Your task to perform on an android device: manage bookmarks in the chrome app Image 0: 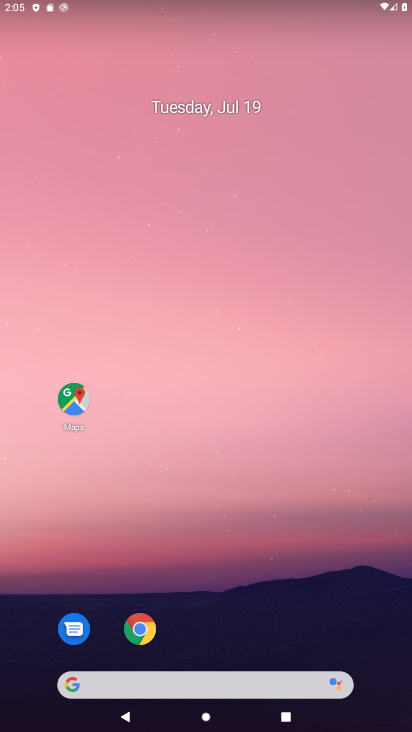
Step 0: click (141, 629)
Your task to perform on an android device: manage bookmarks in the chrome app Image 1: 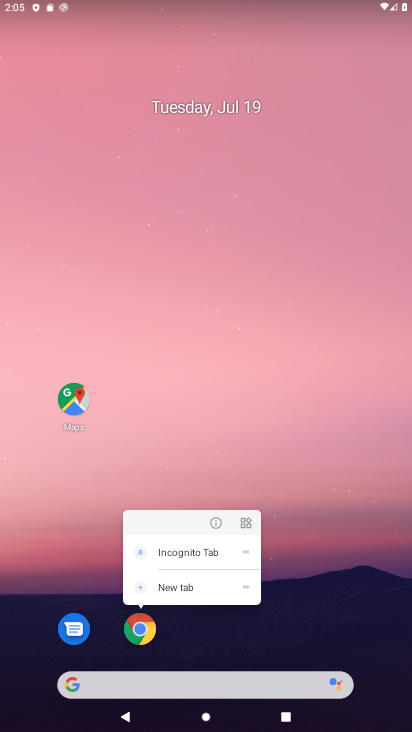
Step 1: click (143, 633)
Your task to perform on an android device: manage bookmarks in the chrome app Image 2: 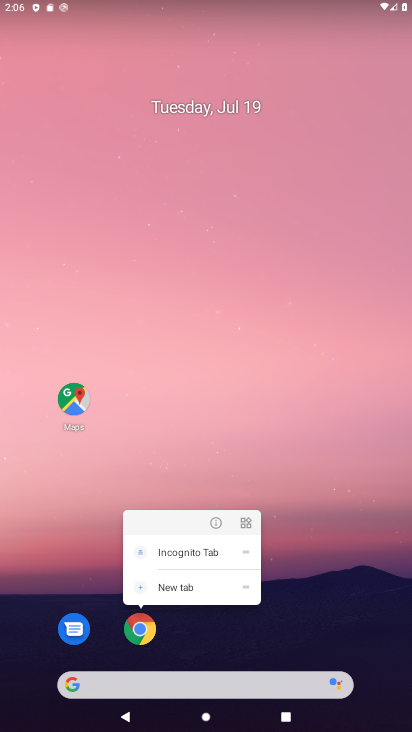
Step 2: click (143, 634)
Your task to perform on an android device: manage bookmarks in the chrome app Image 3: 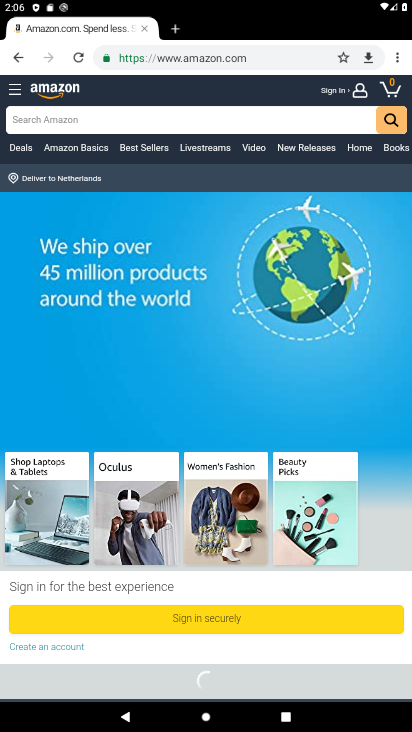
Step 3: drag from (393, 54) to (342, 114)
Your task to perform on an android device: manage bookmarks in the chrome app Image 4: 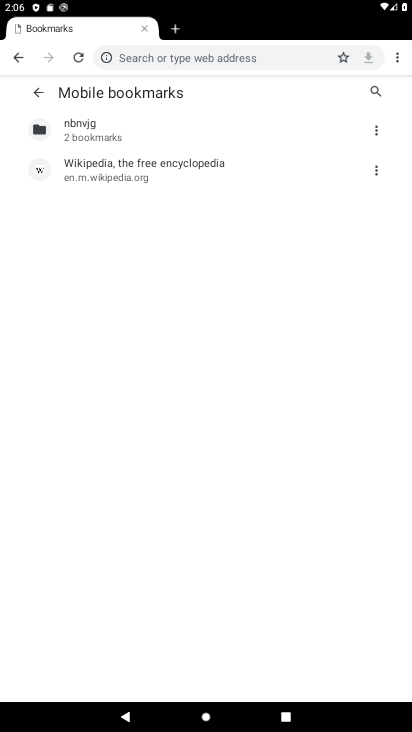
Step 4: click (179, 177)
Your task to perform on an android device: manage bookmarks in the chrome app Image 5: 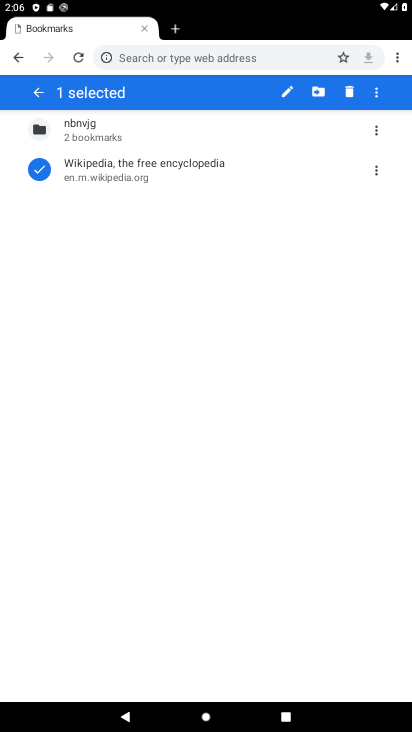
Step 5: click (324, 85)
Your task to perform on an android device: manage bookmarks in the chrome app Image 6: 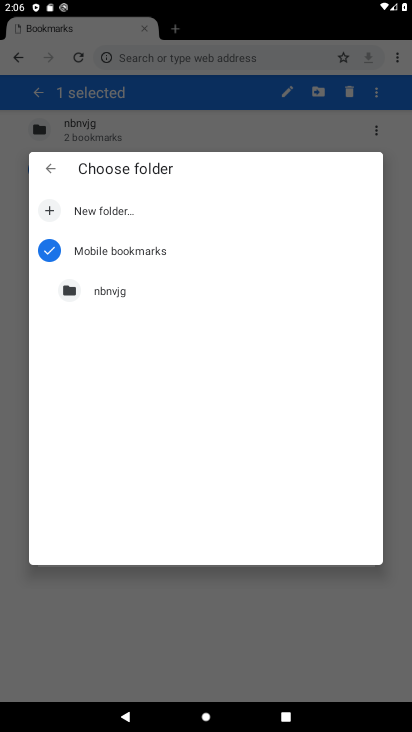
Step 6: click (157, 210)
Your task to perform on an android device: manage bookmarks in the chrome app Image 7: 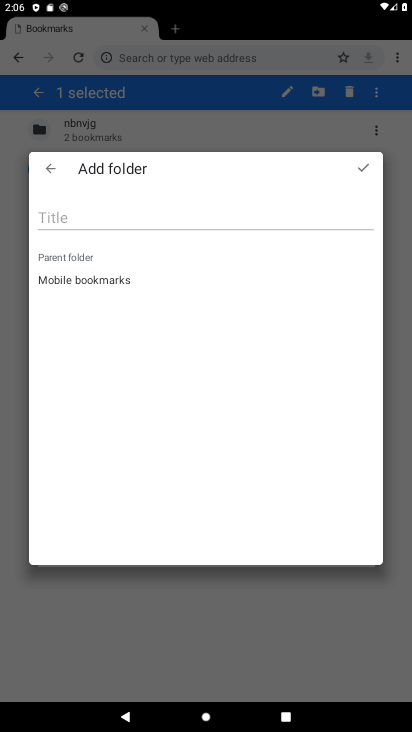
Step 7: click (91, 219)
Your task to perform on an android device: manage bookmarks in the chrome app Image 8: 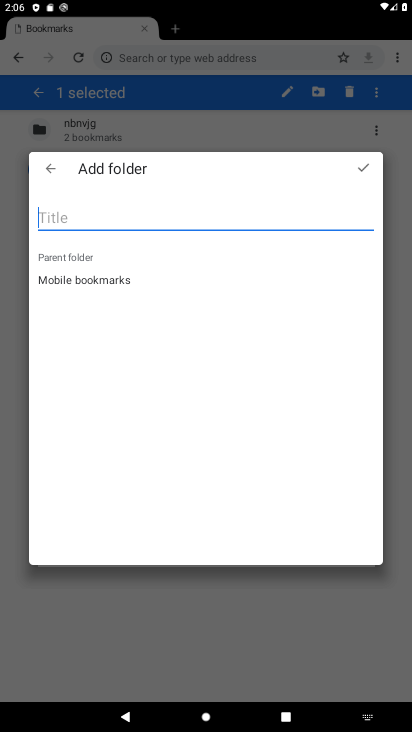
Step 8: type "hh"
Your task to perform on an android device: manage bookmarks in the chrome app Image 9: 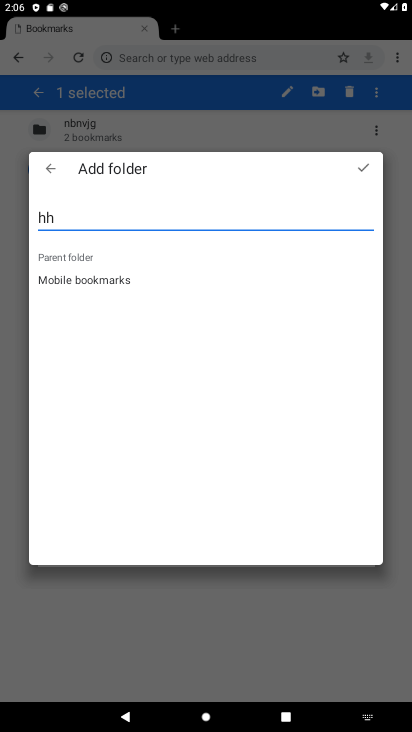
Step 9: click (370, 162)
Your task to perform on an android device: manage bookmarks in the chrome app Image 10: 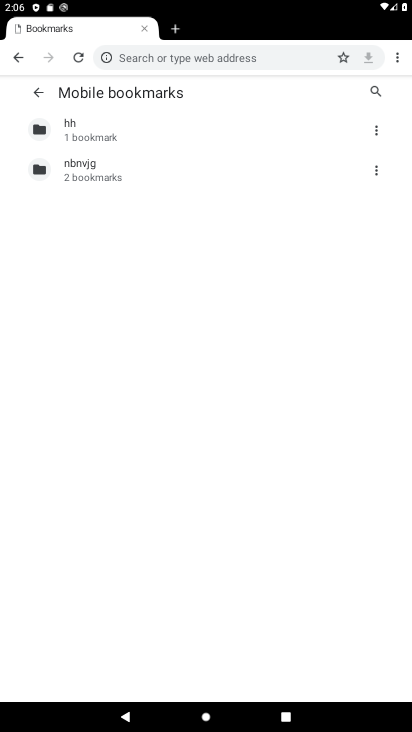
Step 10: task complete